Your task to perform on an android device: Go to CNN.com Image 0: 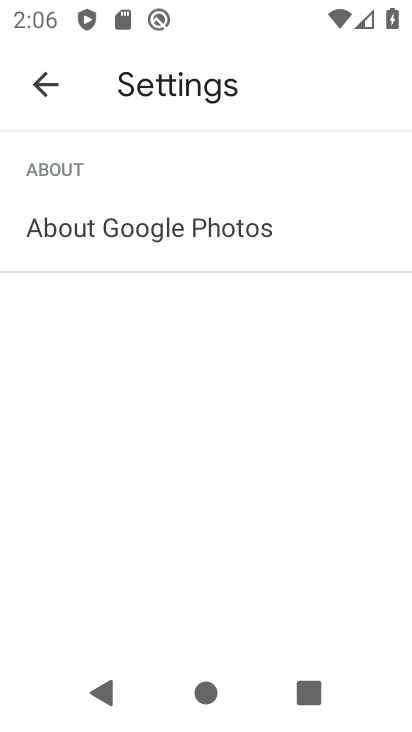
Step 0: press home button
Your task to perform on an android device: Go to CNN.com Image 1: 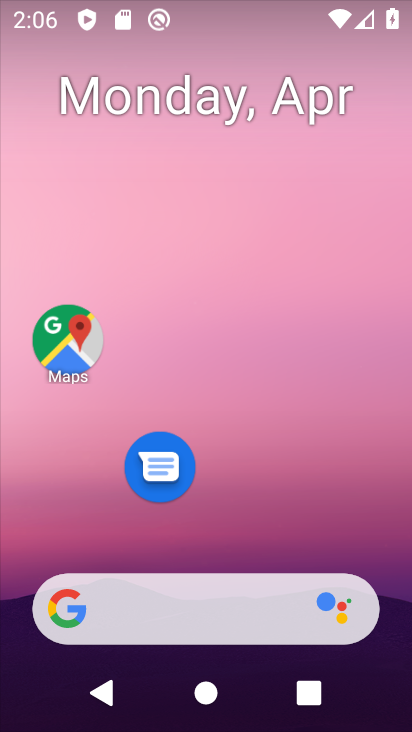
Step 1: drag from (270, 518) to (263, 230)
Your task to perform on an android device: Go to CNN.com Image 2: 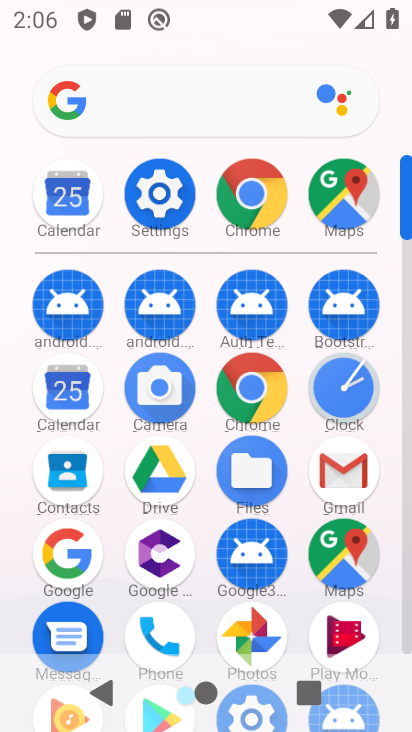
Step 2: click (235, 190)
Your task to perform on an android device: Go to CNN.com Image 3: 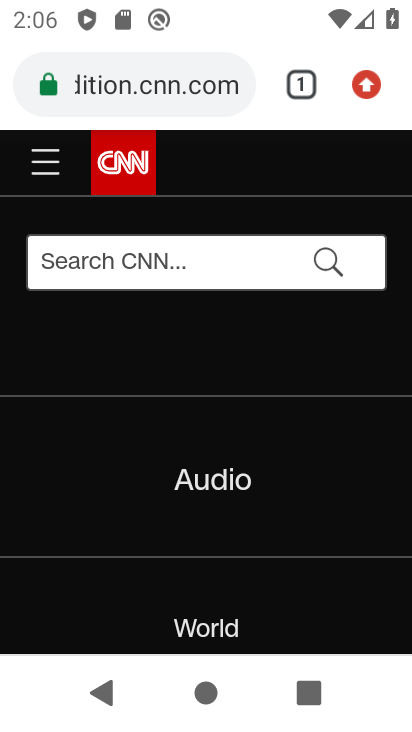
Step 3: task complete